Your task to perform on an android device: turn on wifi Image 0: 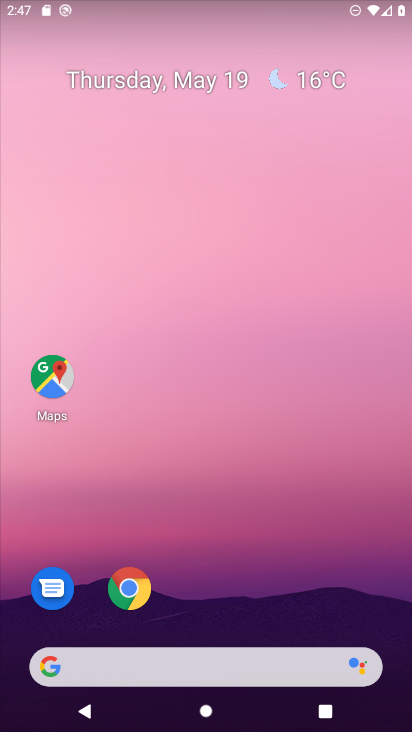
Step 0: drag from (226, 566) to (231, 13)
Your task to perform on an android device: turn on wifi Image 1: 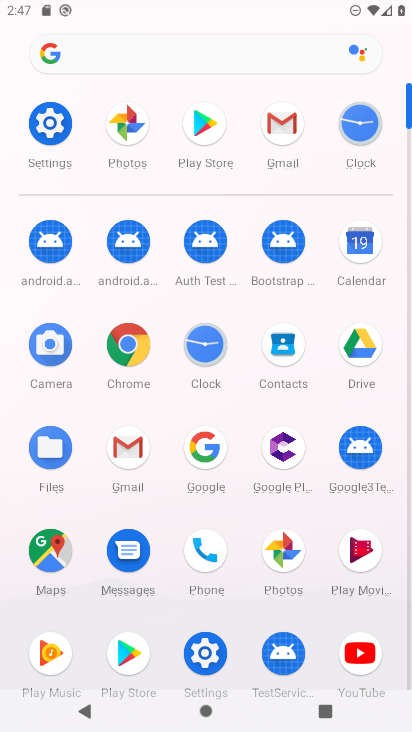
Step 1: click (49, 129)
Your task to perform on an android device: turn on wifi Image 2: 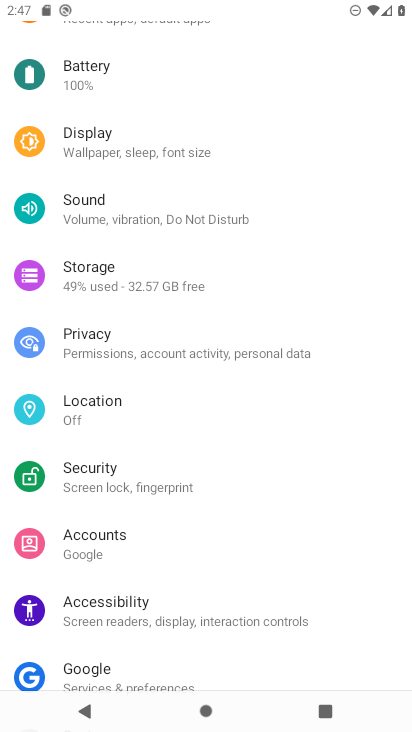
Step 2: drag from (258, 137) to (290, 475)
Your task to perform on an android device: turn on wifi Image 3: 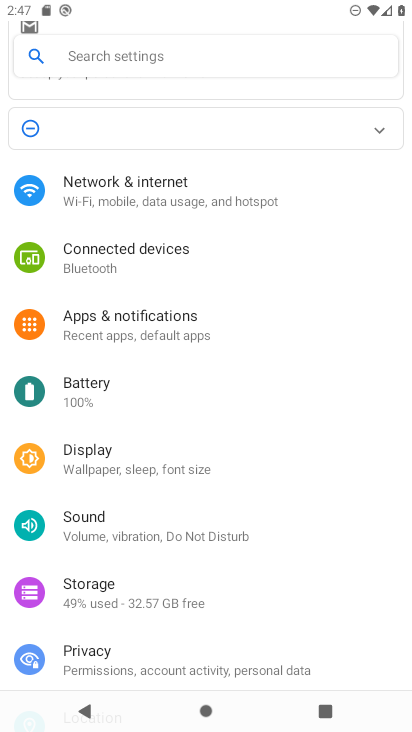
Step 3: click (137, 200)
Your task to perform on an android device: turn on wifi Image 4: 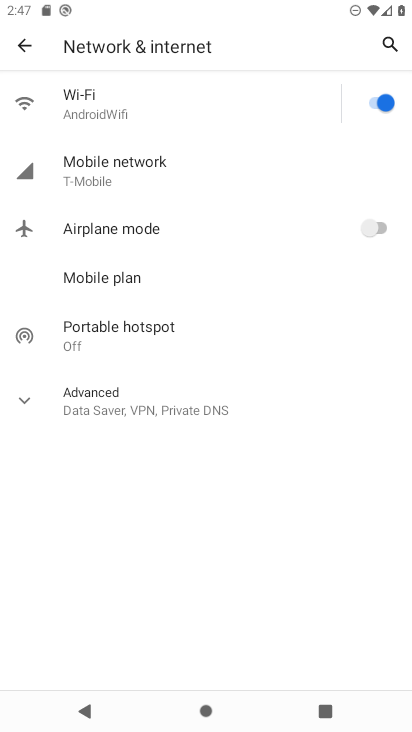
Step 4: task complete